Your task to perform on an android device: Turn off the flashlight Image 0: 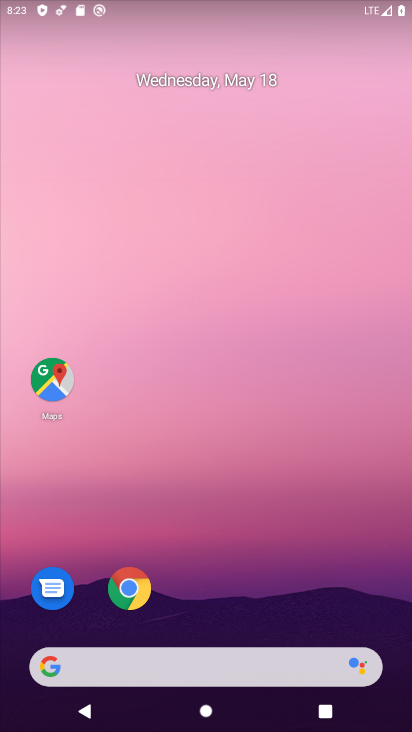
Step 0: drag from (197, 5) to (255, 716)
Your task to perform on an android device: Turn off the flashlight Image 1: 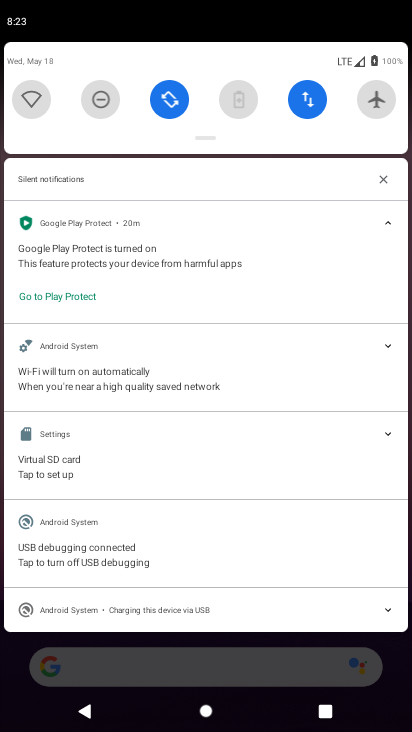
Step 1: task complete